Your task to perform on an android device: Go to Yahoo.com Image 0: 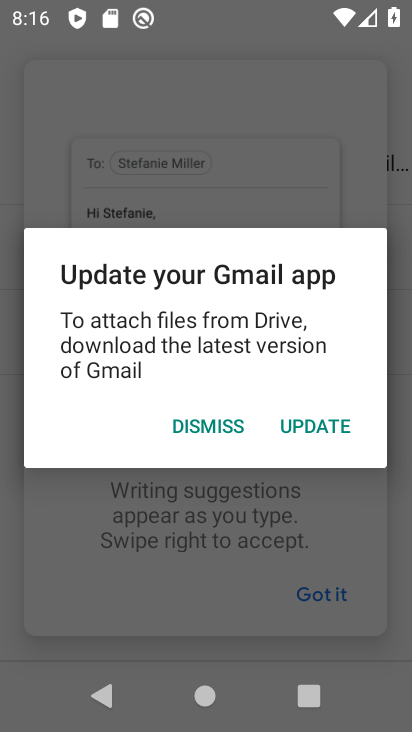
Step 0: press home button
Your task to perform on an android device: Go to Yahoo.com Image 1: 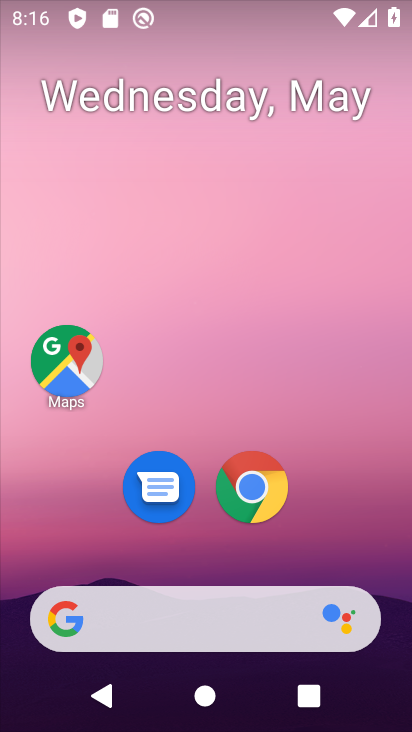
Step 1: click (249, 488)
Your task to perform on an android device: Go to Yahoo.com Image 2: 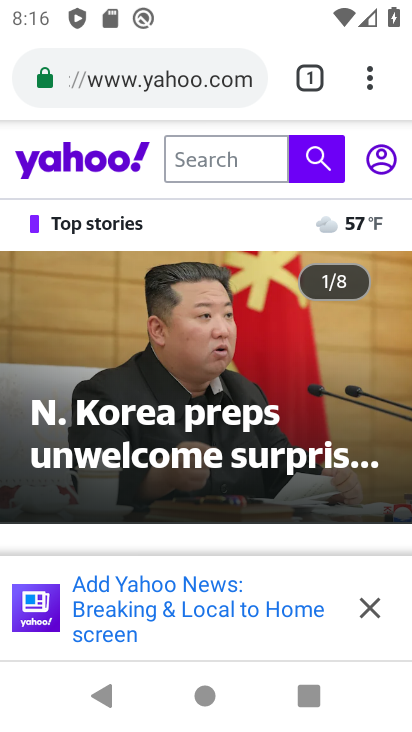
Step 2: task complete